Your task to perform on an android device: Open my contact list Image 0: 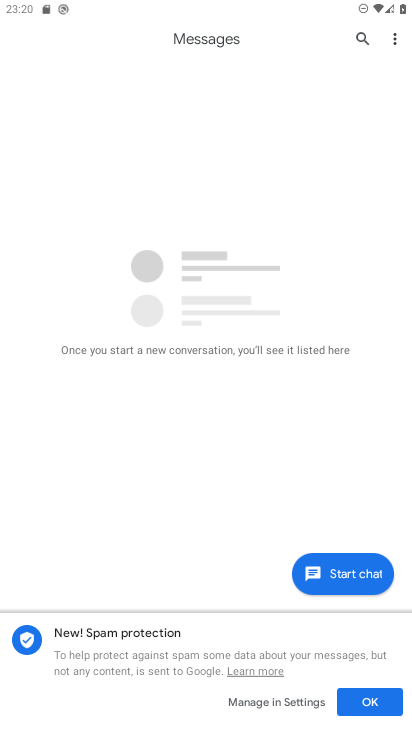
Step 0: press home button
Your task to perform on an android device: Open my contact list Image 1: 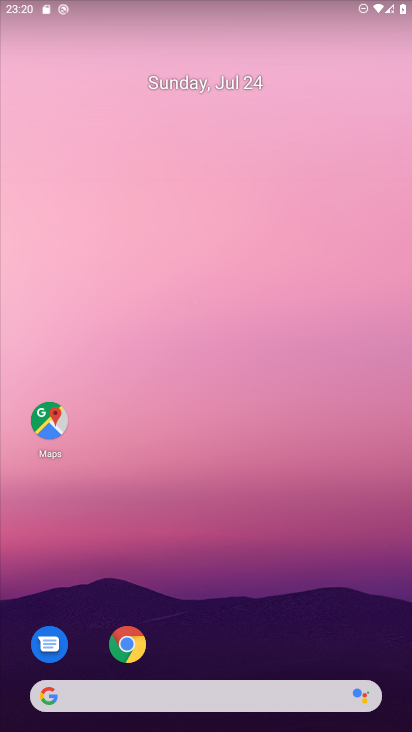
Step 1: drag from (379, 655) to (301, 157)
Your task to perform on an android device: Open my contact list Image 2: 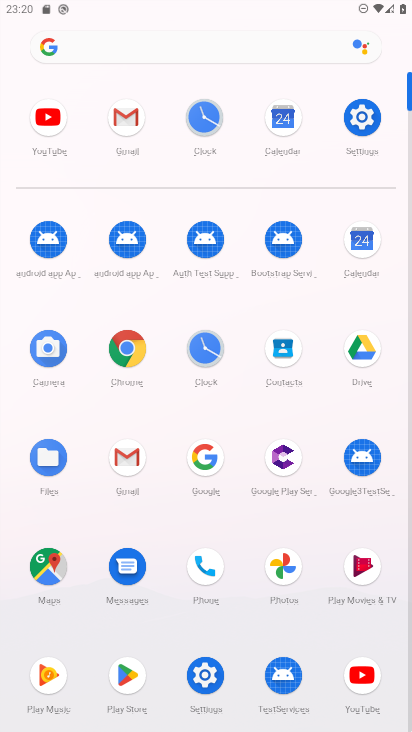
Step 2: click (279, 346)
Your task to perform on an android device: Open my contact list Image 3: 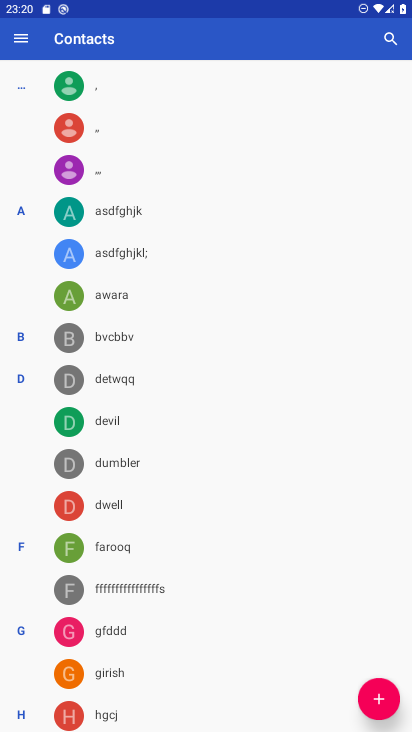
Step 3: task complete